Your task to perform on an android device: turn on translation in the chrome app Image 0: 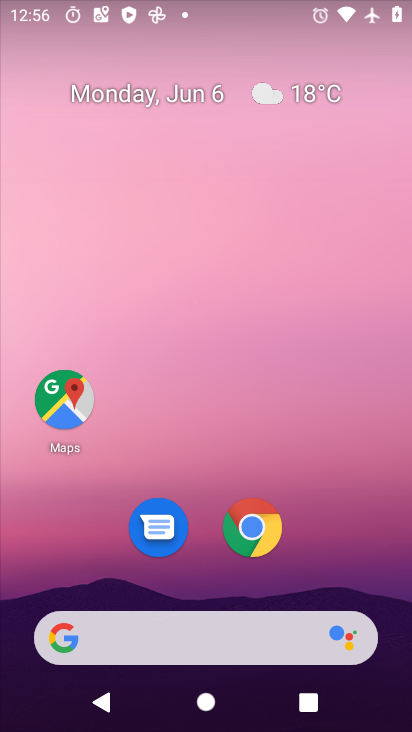
Step 0: click (257, 537)
Your task to perform on an android device: turn on translation in the chrome app Image 1: 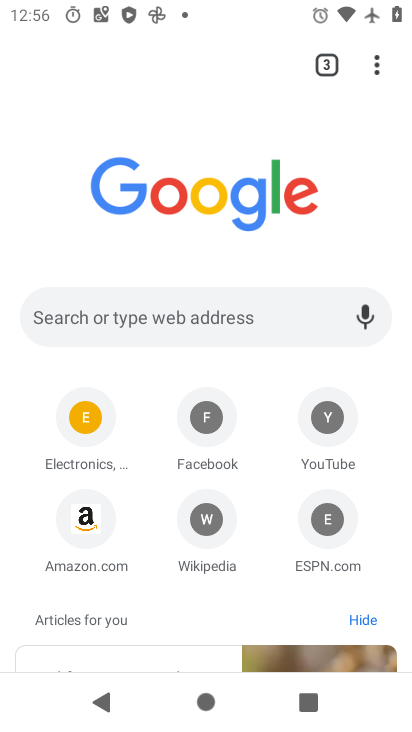
Step 1: click (376, 69)
Your task to perform on an android device: turn on translation in the chrome app Image 2: 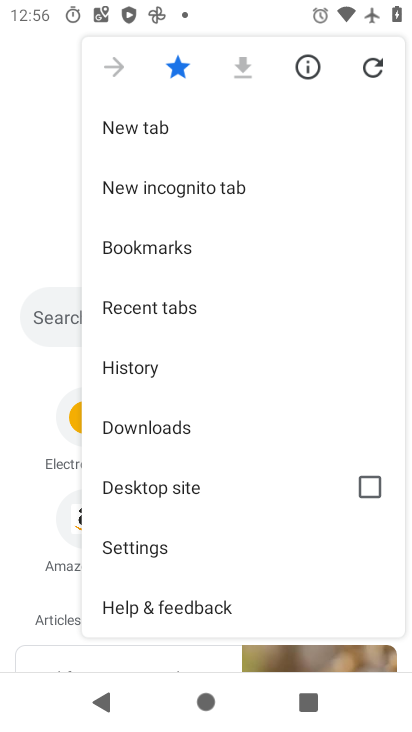
Step 2: click (252, 535)
Your task to perform on an android device: turn on translation in the chrome app Image 3: 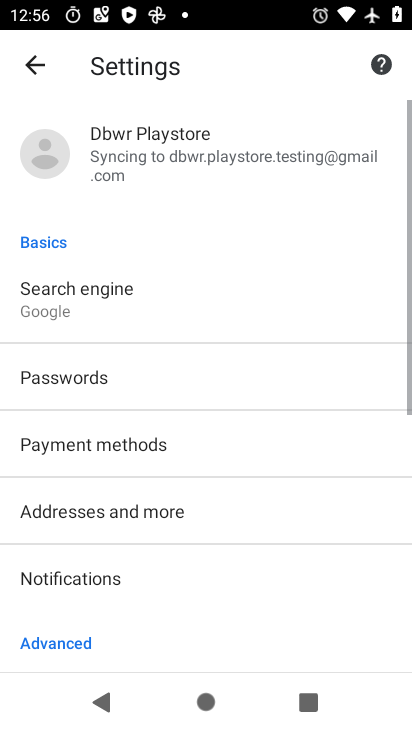
Step 3: drag from (197, 577) to (240, 72)
Your task to perform on an android device: turn on translation in the chrome app Image 4: 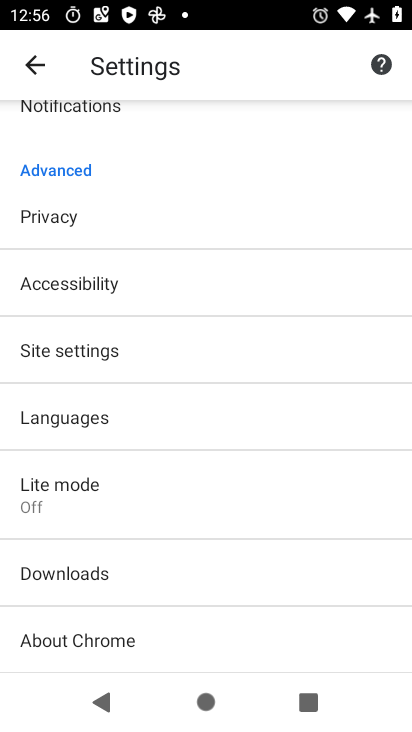
Step 4: click (141, 390)
Your task to perform on an android device: turn on translation in the chrome app Image 5: 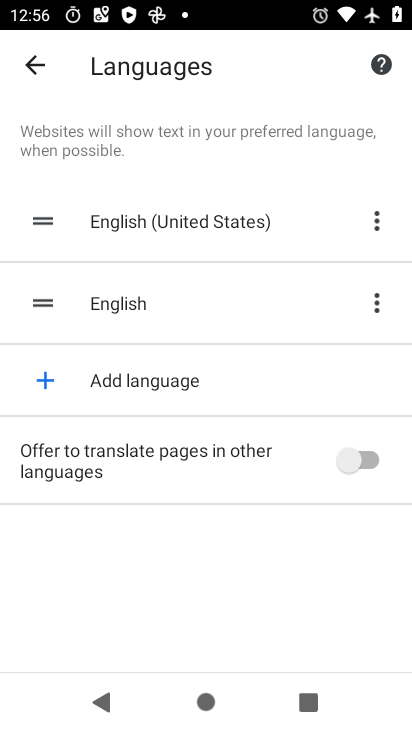
Step 5: click (359, 475)
Your task to perform on an android device: turn on translation in the chrome app Image 6: 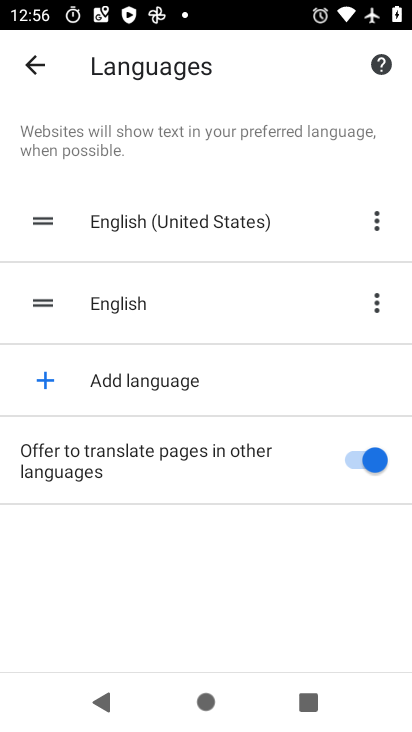
Step 6: task complete